Your task to perform on an android device: turn off javascript in the chrome app Image 0: 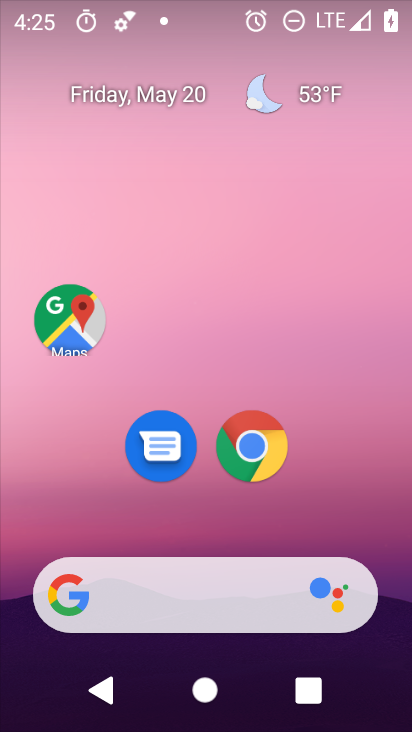
Step 0: drag from (345, 502) to (396, 35)
Your task to perform on an android device: turn off javascript in the chrome app Image 1: 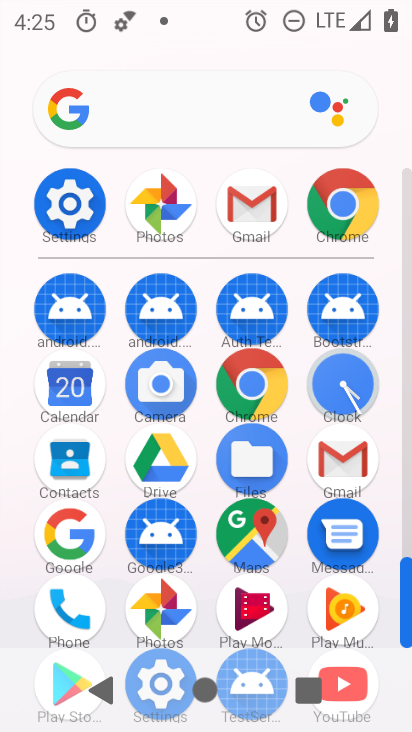
Step 1: click (348, 216)
Your task to perform on an android device: turn off javascript in the chrome app Image 2: 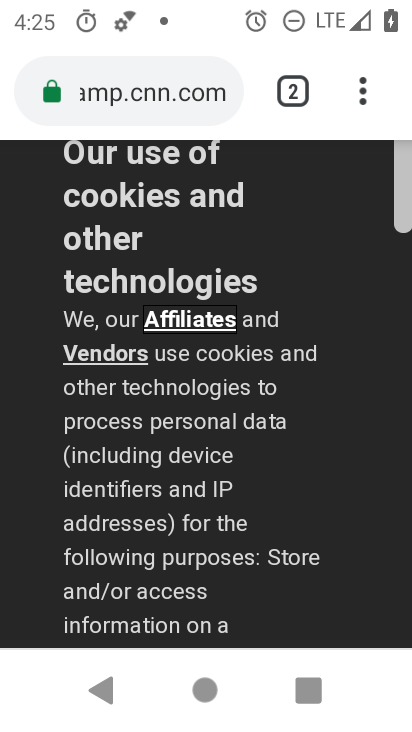
Step 2: drag from (354, 84) to (131, 471)
Your task to perform on an android device: turn off javascript in the chrome app Image 3: 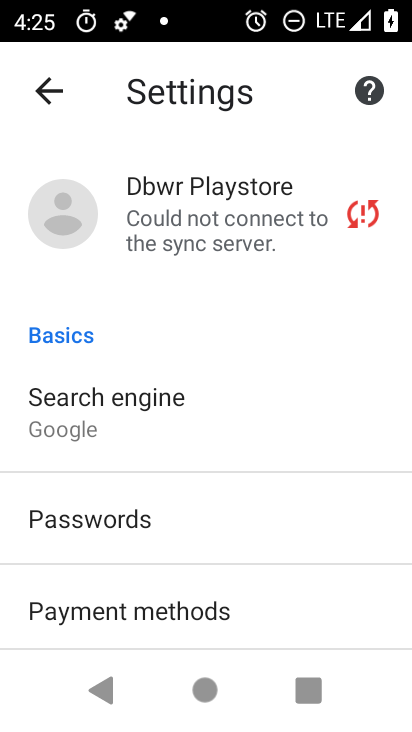
Step 3: drag from (191, 621) to (213, 284)
Your task to perform on an android device: turn off javascript in the chrome app Image 4: 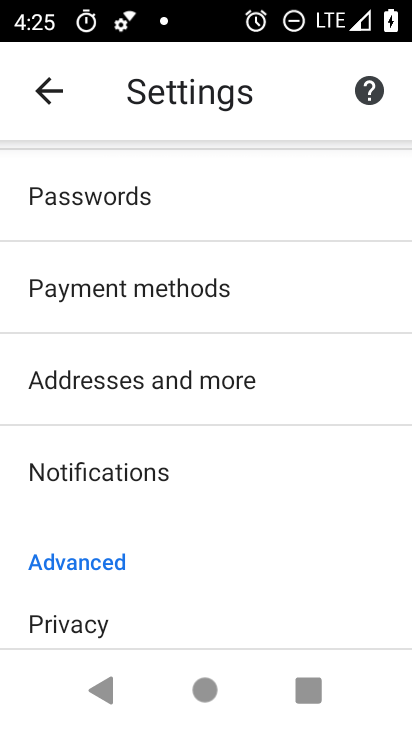
Step 4: drag from (216, 605) to (204, 338)
Your task to perform on an android device: turn off javascript in the chrome app Image 5: 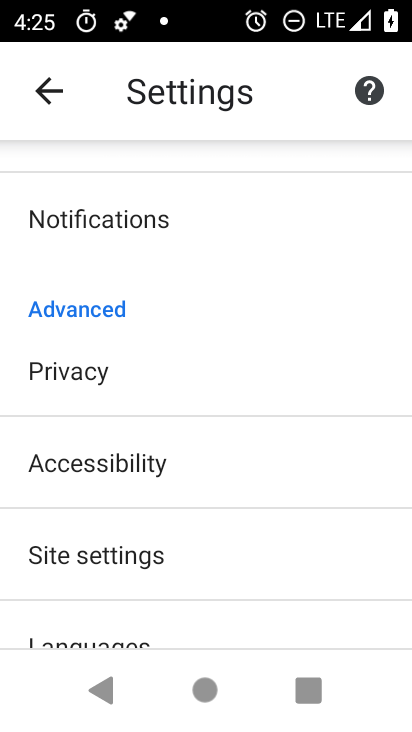
Step 5: click (193, 545)
Your task to perform on an android device: turn off javascript in the chrome app Image 6: 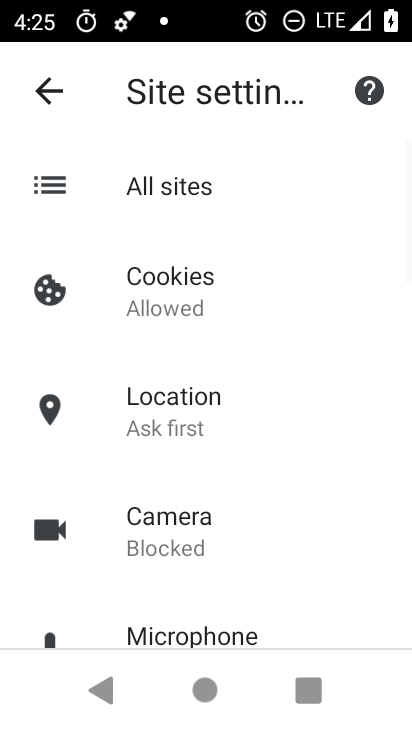
Step 6: drag from (186, 577) to (210, 236)
Your task to perform on an android device: turn off javascript in the chrome app Image 7: 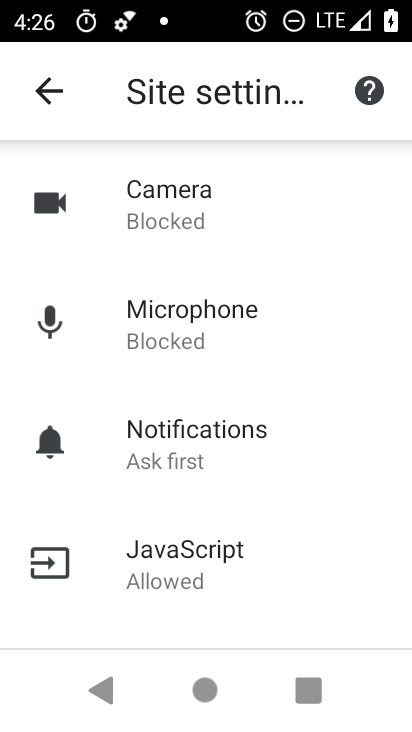
Step 7: click (168, 550)
Your task to perform on an android device: turn off javascript in the chrome app Image 8: 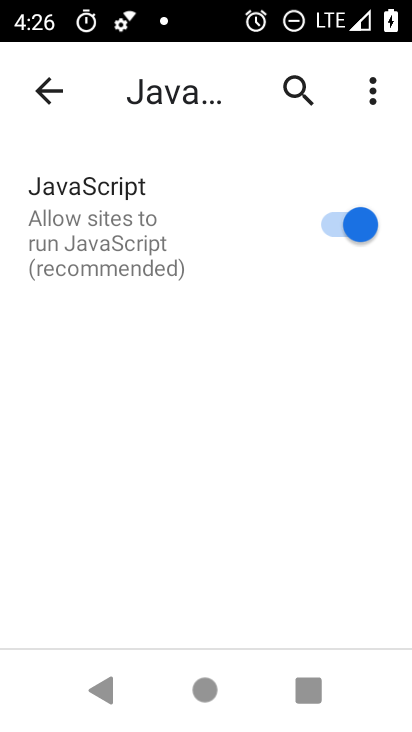
Step 8: click (349, 213)
Your task to perform on an android device: turn off javascript in the chrome app Image 9: 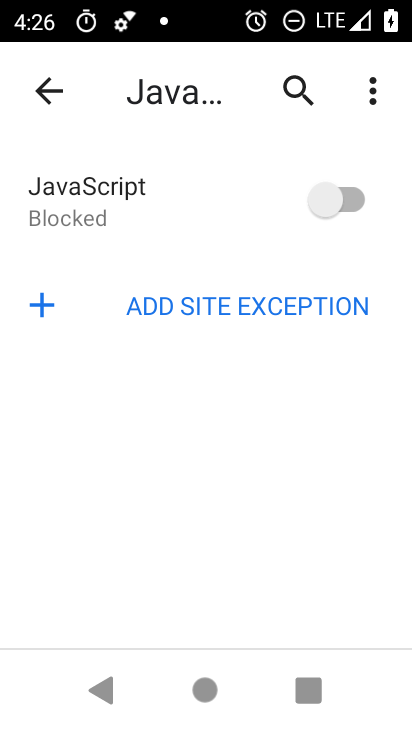
Step 9: task complete